Your task to perform on an android device: show emergency info Image 0: 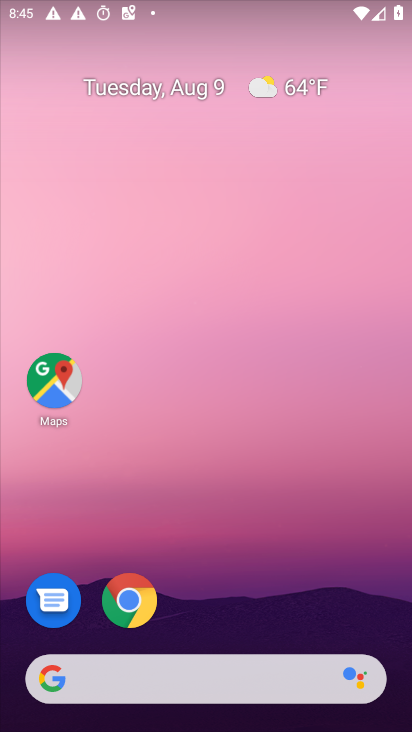
Step 0: press home button
Your task to perform on an android device: show emergency info Image 1: 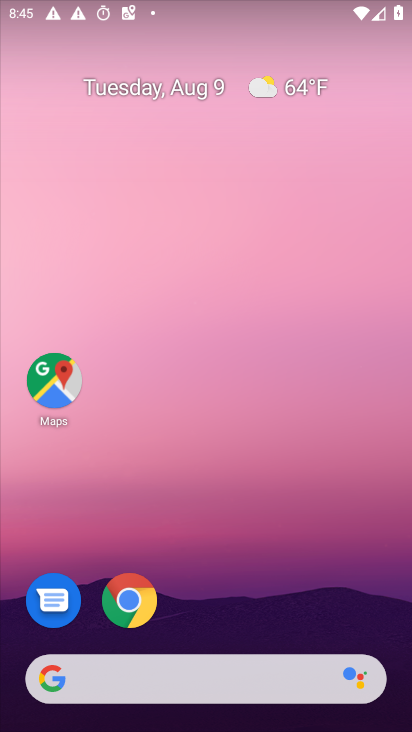
Step 1: press home button
Your task to perform on an android device: show emergency info Image 2: 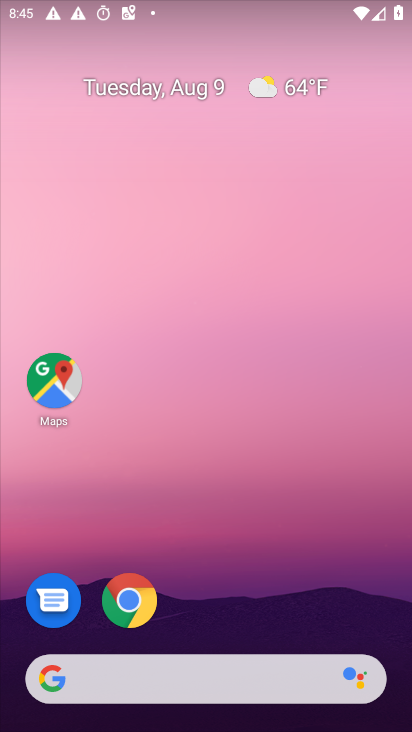
Step 2: drag from (218, 642) to (253, 31)
Your task to perform on an android device: show emergency info Image 3: 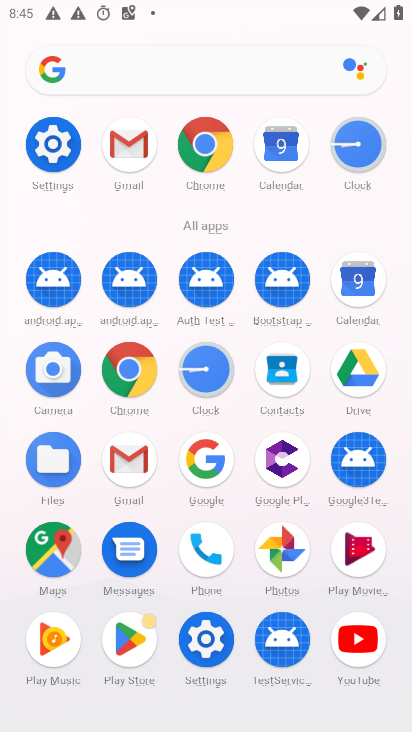
Step 3: click (51, 147)
Your task to perform on an android device: show emergency info Image 4: 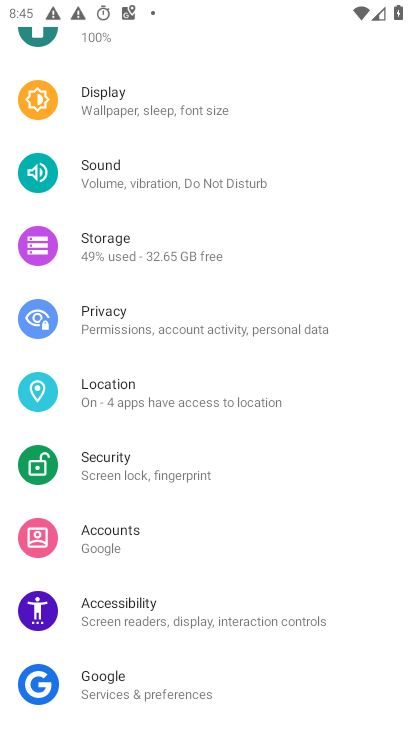
Step 4: drag from (244, 640) to (205, 0)
Your task to perform on an android device: show emergency info Image 5: 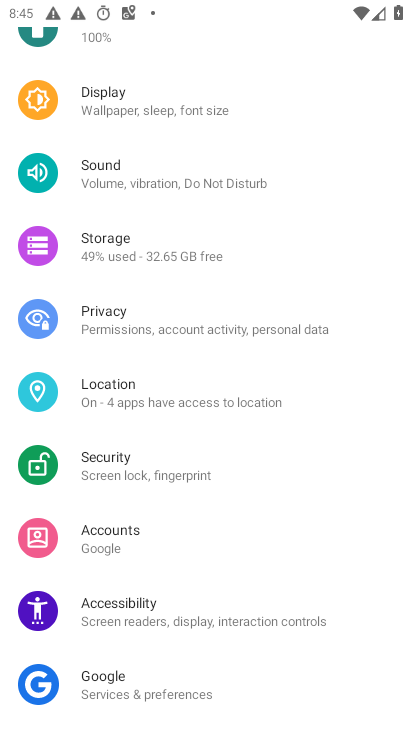
Step 5: drag from (298, 667) to (293, 3)
Your task to perform on an android device: show emergency info Image 6: 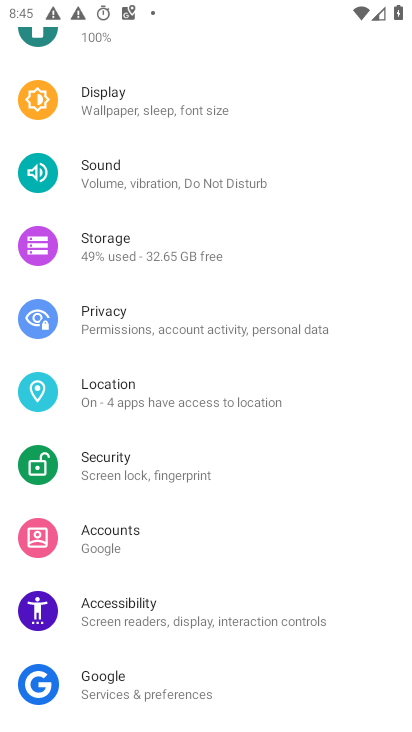
Step 6: drag from (242, 545) to (197, 14)
Your task to perform on an android device: show emergency info Image 7: 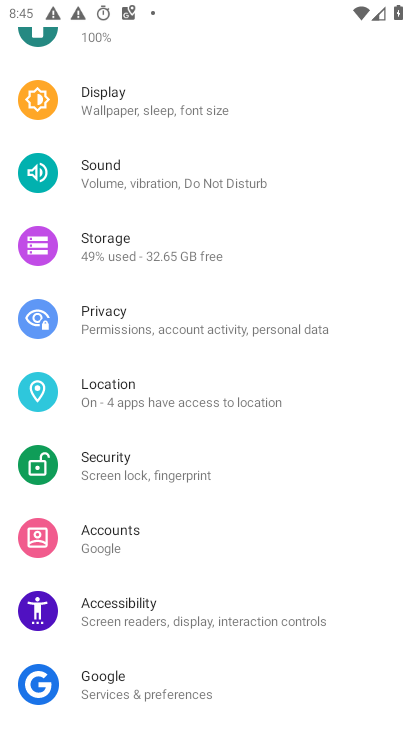
Step 7: drag from (241, 681) to (273, 5)
Your task to perform on an android device: show emergency info Image 8: 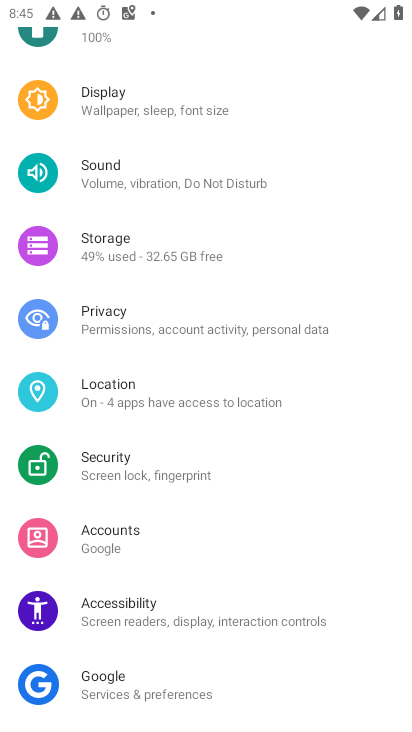
Step 8: drag from (335, 291) to (238, 727)
Your task to perform on an android device: show emergency info Image 9: 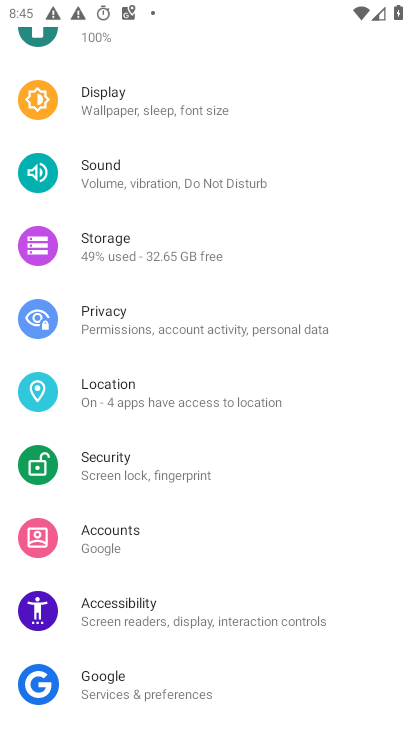
Step 9: drag from (248, 649) to (272, 0)
Your task to perform on an android device: show emergency info Image 10: 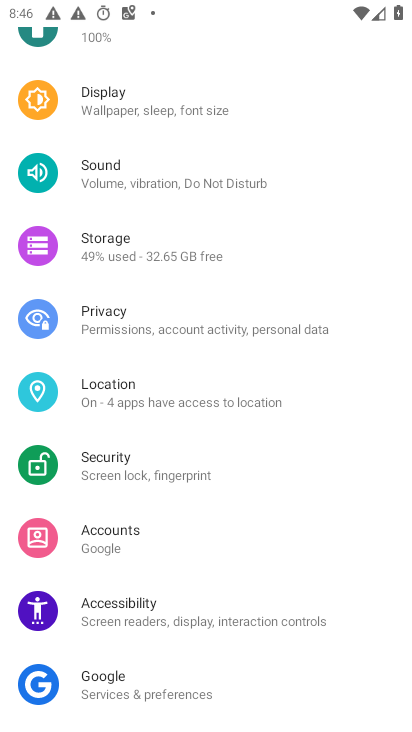
Step 10: drag from (267, 614) to (272, 33)
Your task to perform on an android device: show emergency info Image 11: 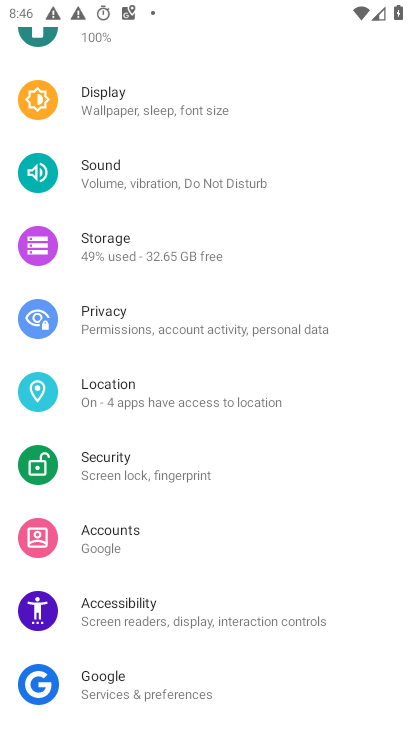
Step 11: drag from (286, 685) to (325, 254)
Your task to perform on an android device: show emergency info Image 12: 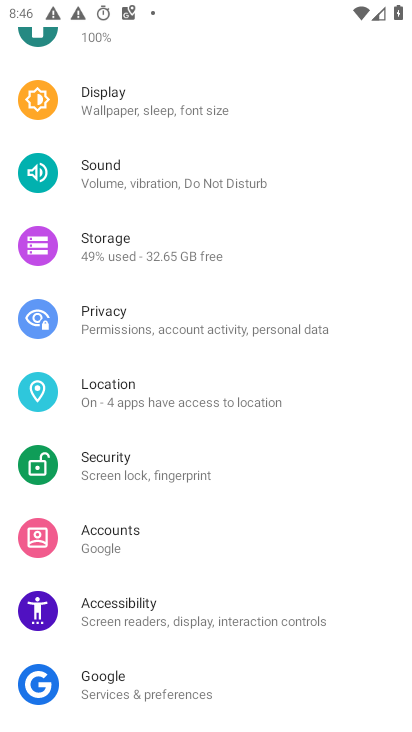
Step 12: drag from (302, 672) to (371, 125)
Your task to perform on an android device: show emergency info Image 13: 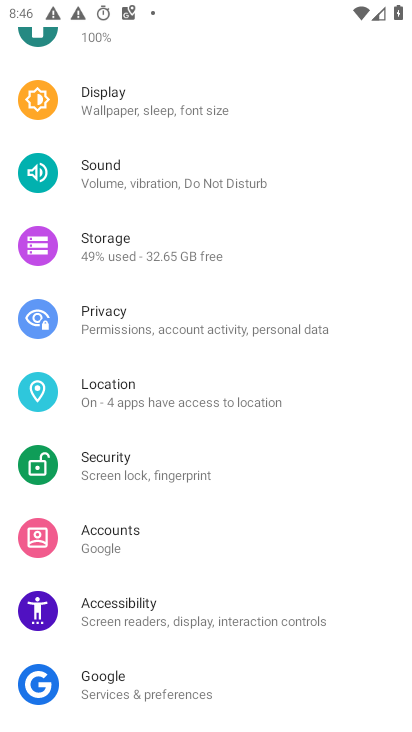
Step 13: drag from (276, 679) to (298, 6)
Your task to perform on an android device: show emergency info Image 14: 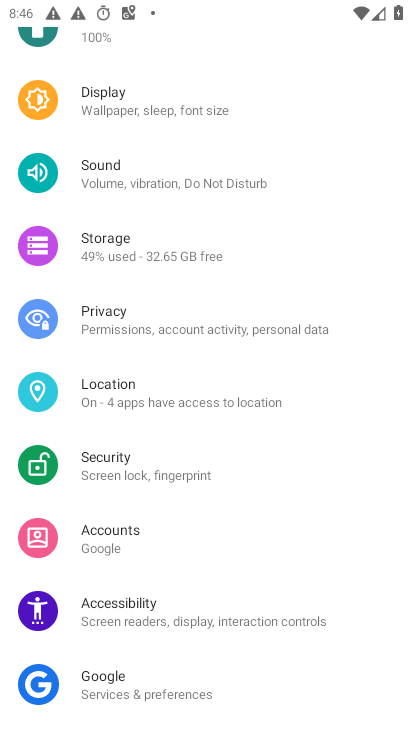
Step 14: drag from (159, 563) to (203, 17)
Your task to perform on an android device: show emergency info Image 15: 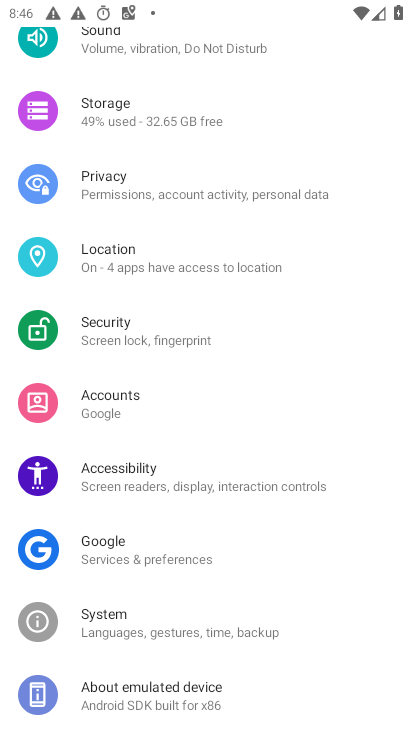
Step 15: click (142, 695)
Your task to perform on an android device: show emergency info Image 16: 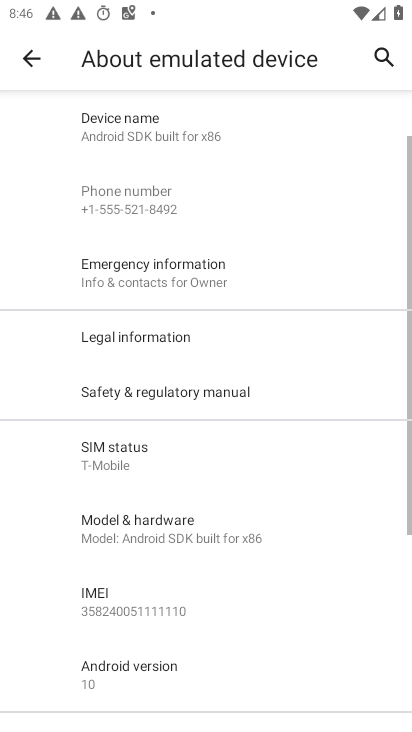
Step 16: click (167, 275)
Your task to perform on an android device: show emergency info Image 17: 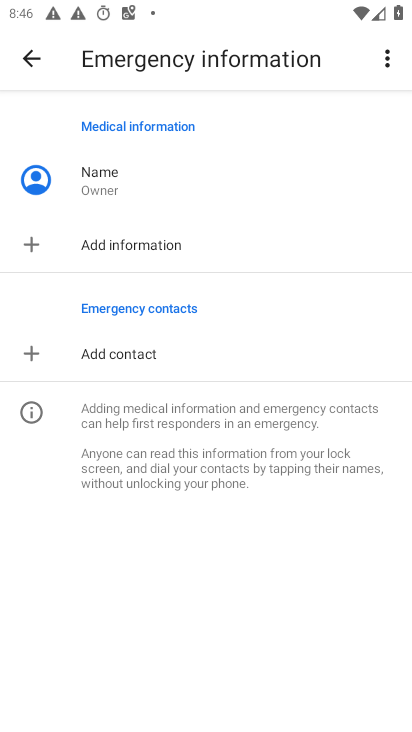
Step 17: task complete